Your task to perform on an android device: Empty the shopping cart on ebay. Search for "alienware aurora" on ebay, select the first entry, add it to the cart, then select checkout. Image 0: 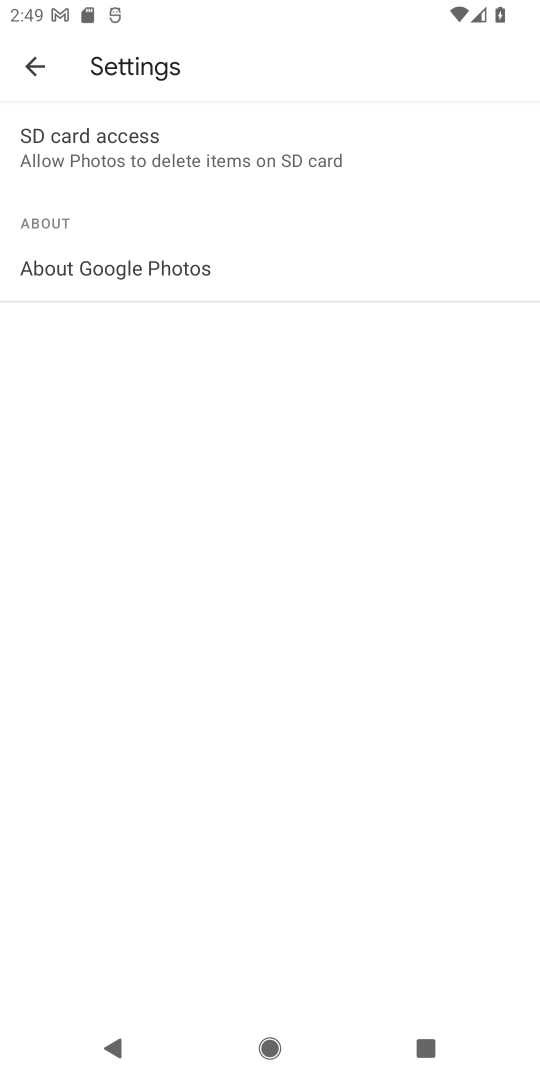
Step 0: press home button
Your task to perform on an android device: Empty the shopping cart on ebay. Search for "alienware aurora" on ebay, select the first entry, add it to the cart, then select checkout. Image 1: 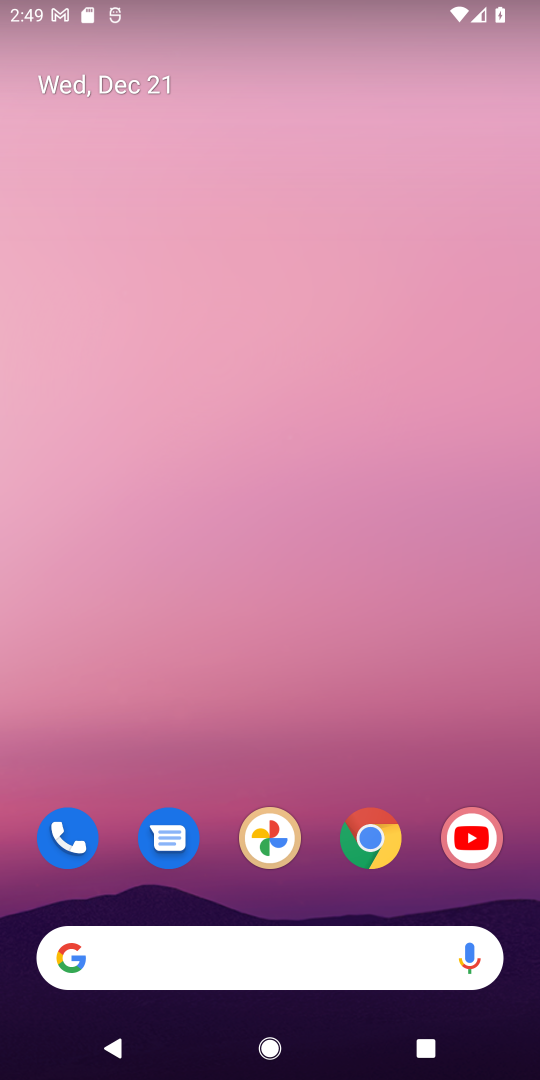
Step 1: click (357, 832)
Your task to perform on an android device: Empty the shopping cart on ebay. Search for "alienware aurora" on ebay, select the first entry, add it to the cart, then select checkout. Image 2: 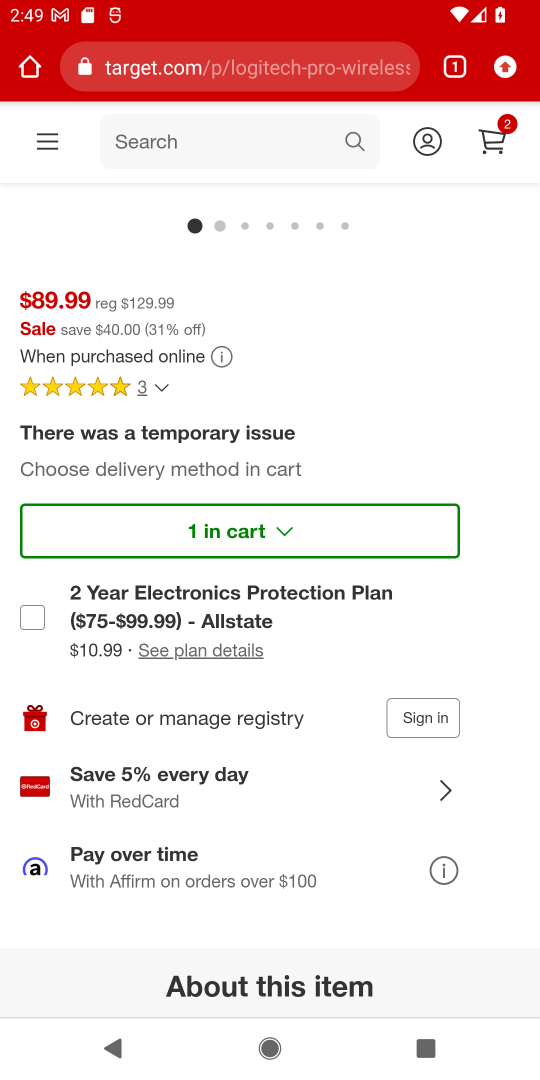
Step 2: click (303, 82)
Your task to perform on an android device: Empty the shopping cart on ebay. Search for "alienware aurora" on ebay, select the first entry, add it to the cart, then select checkout. Image 3: 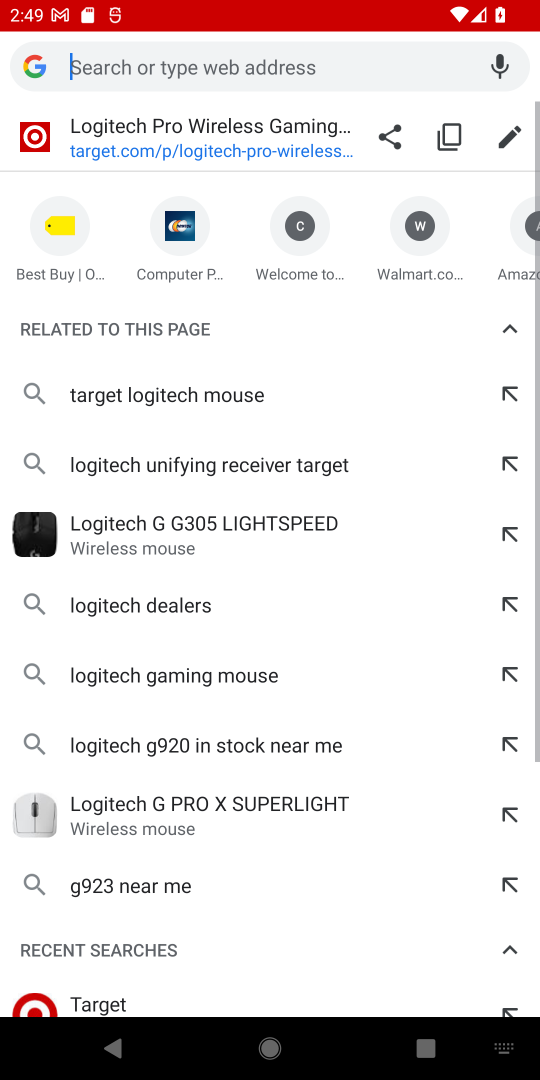
Step 3: type "ebay"
Your task to perform on an android device: Empty the shopping cart on ebay. Search for "alienware aurora" on ebay, select the first entry, add it to the cart, then select checkout. Image 4: 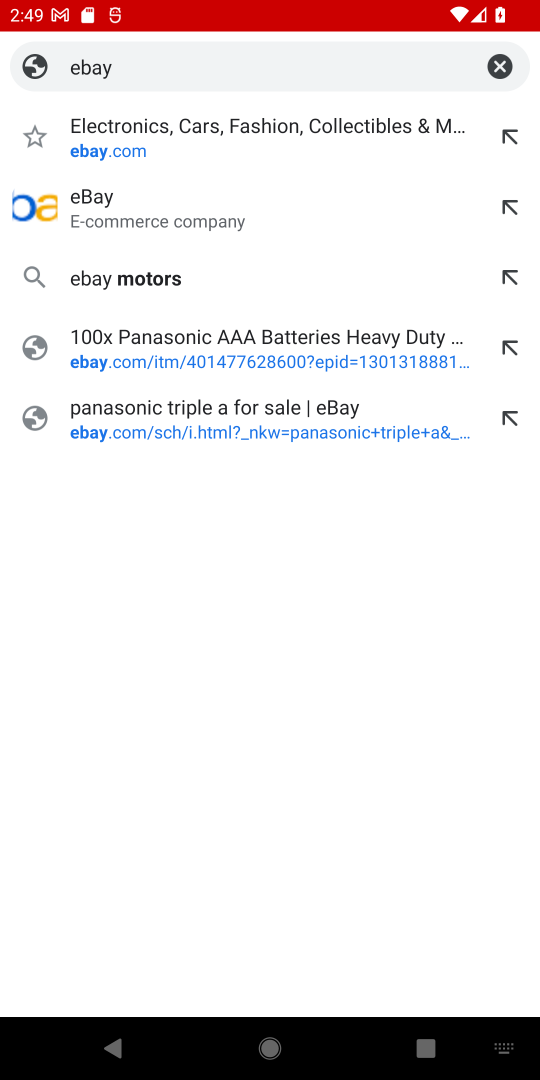
Step 4: click (131, 118)
Your task to perform on an android device: Empty the shopping cart on ebay. Search for "alienware aurora" on ebay, select the first entry, add it to the cart, then select checkout. Image 5: 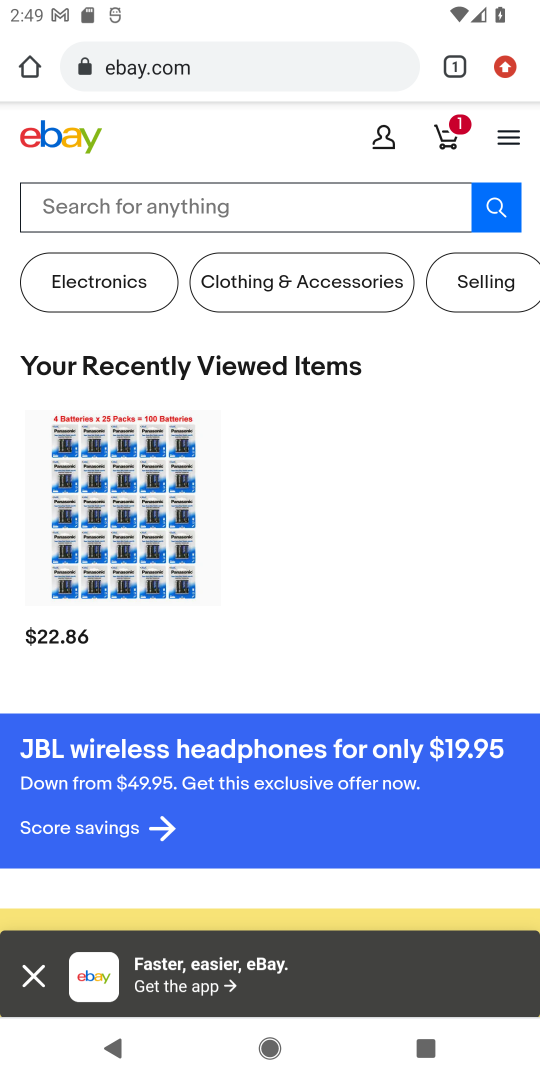
Step 5: click (218, 213)
Your task to perform on an android device: Empty the shopping cart on ebay. Search for "alienware aurora" on ebay, select the first entry, add it to the cart, then select checkout. Image 6: 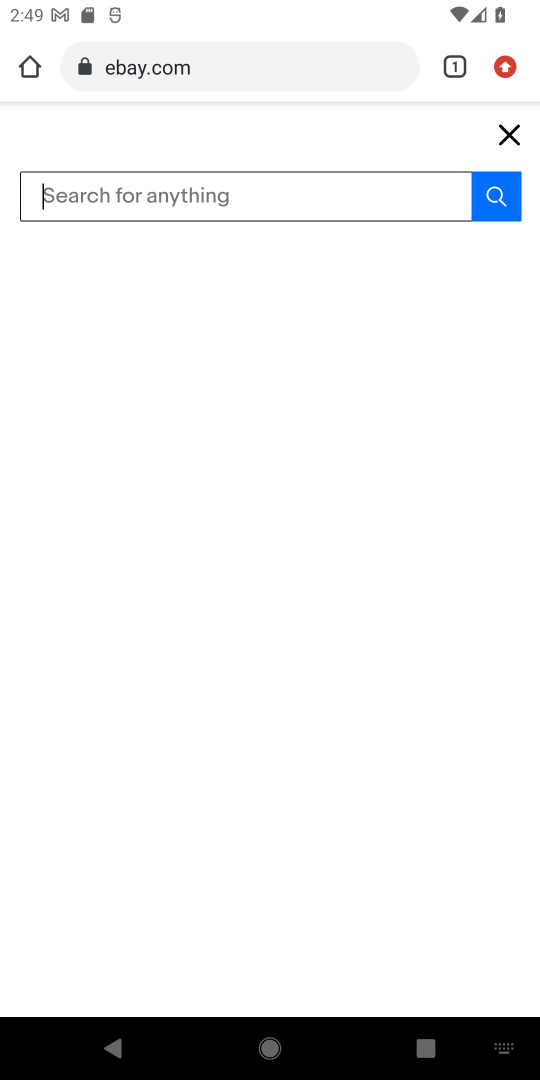
Step 6: type "alienware aurora"
Your task to perform on an android device: Empty the shopping cart on ebay. Search for "alienware aurora" on ebay, select the first entry, add it to the cart, then select checkout. Image 7: 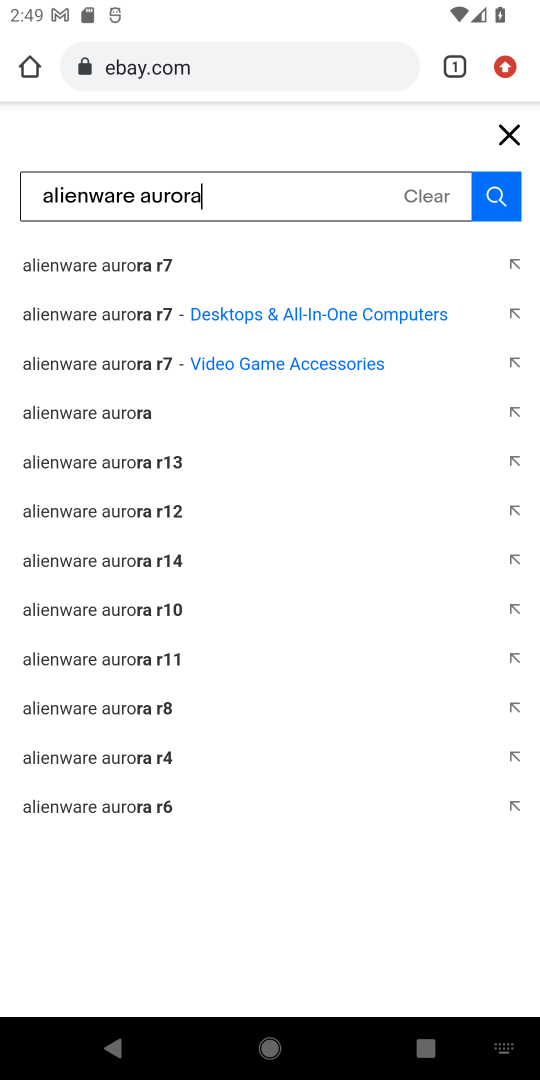
Step 7: click (488, 210)
Your task to perform on an android device: Empty the shopping cart on ebay. Search for "alienware aurora" on ebay, select the first entry, add it to the cart, then select checkout. Image 8: 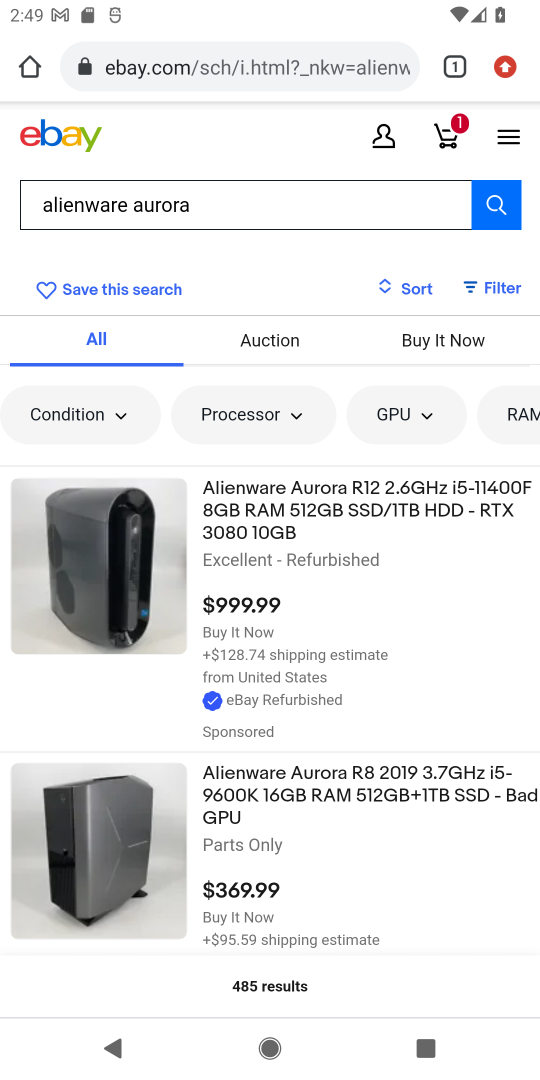
Step 8: click (362, 524)
Your task to perform on an android device: Empty the shopping cart on ebay. Search for "alienware aurora" on ebay, select the first entry, add it to the cart, then select checkout. Image 9: 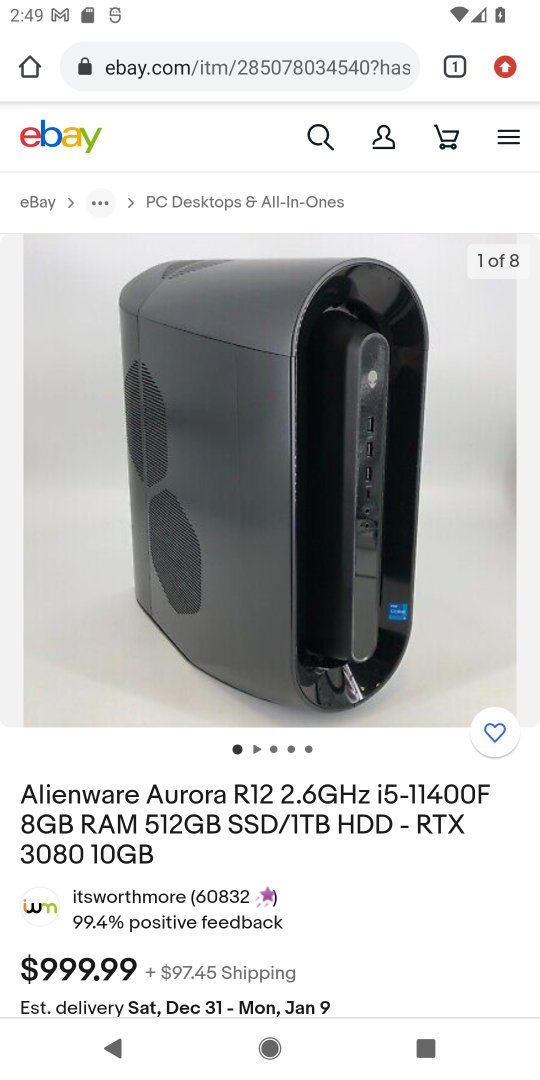
Step 9: drag from (283, 730) to (378, 272)
Your task to perform on an android device: Empty the shopping cart on ebay. Search for "alienware aurora" on ebay, select the first entry, add it to the cart, then select checkout. Image 10: 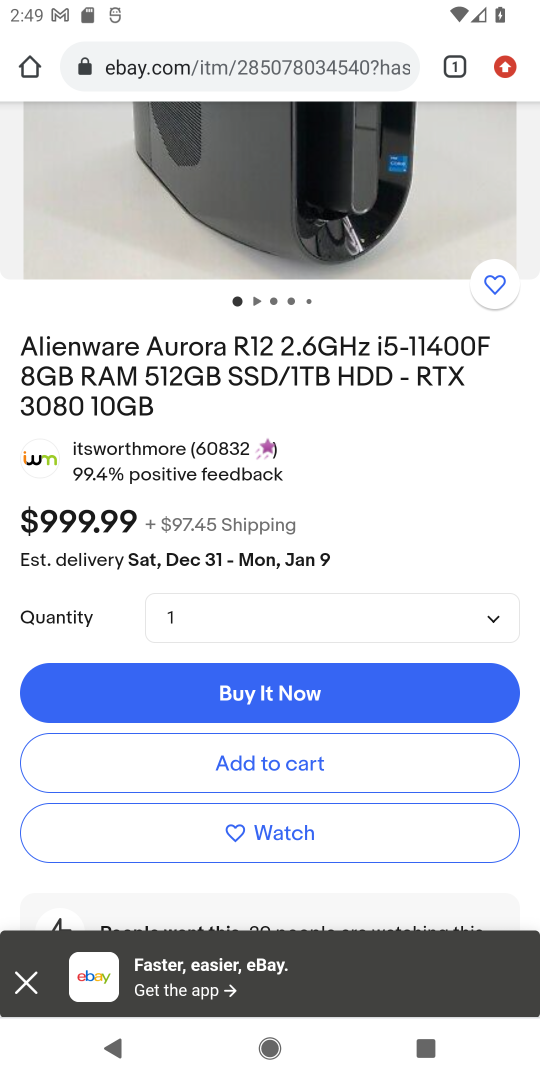
Step 10: click (322, 767)
Your task to perform on an android device: Empty the shopping cart on ebay. Search for "alienware aurora" on ebay, select the first entry, add it to the cart, then select checkout. Image 11: 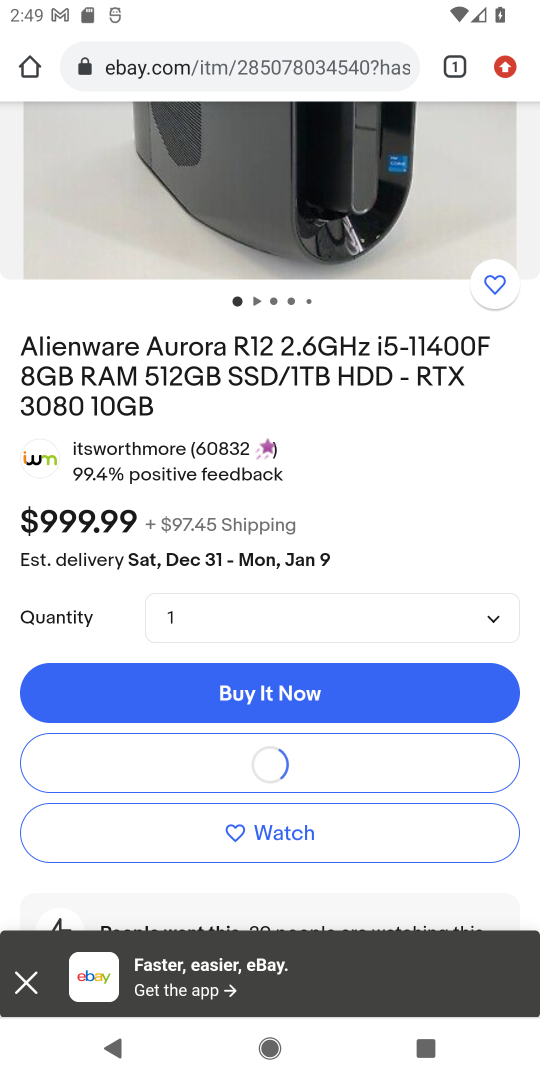
Step 11: task complete